Your task to perform on an android device: Open wifi settings Image 0: 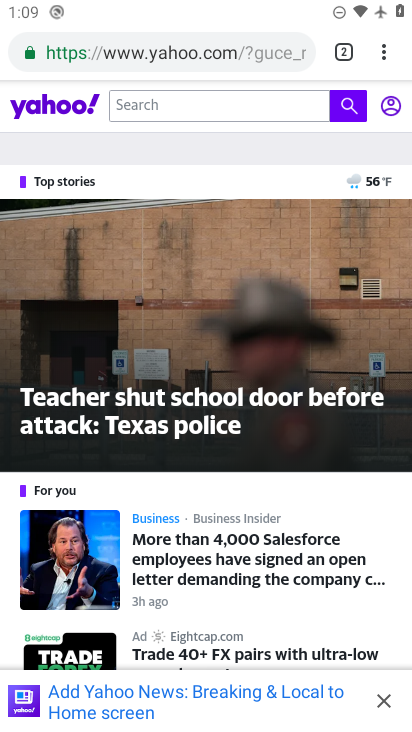
Step 0: press home button
Your task to perform on an android device: Open wifi settings Image 1: 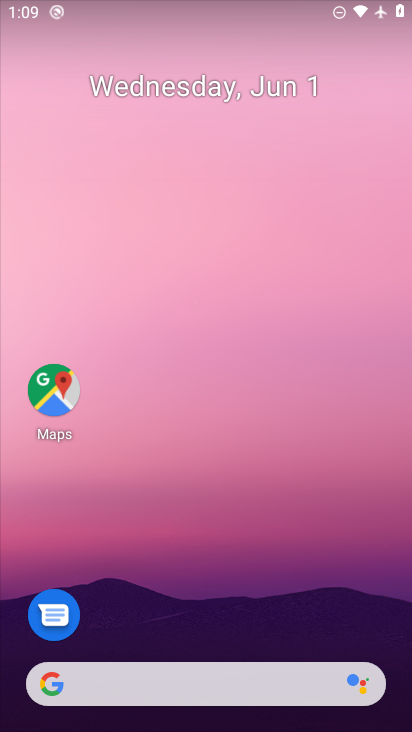
Step 1: drag from (126, 706) to (225, 173)
Your task to perform on an android device: Open wifi settings Image 2: 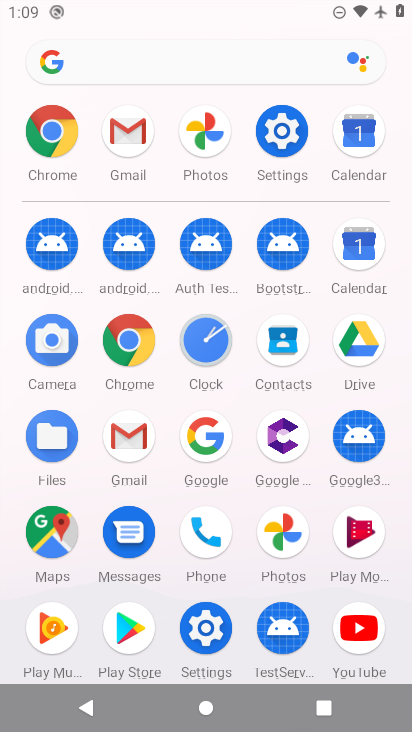
Step 2: click (299, 139)
Your task to perform on an android device: Open wifi settings Image 3: 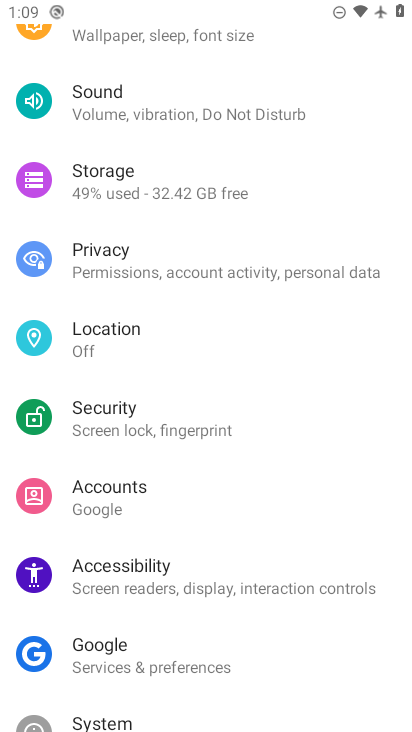
Step 3: drag from (123, 169) to (121, 635)
Your task to perform on an android device: Open wifi settings Image 4: 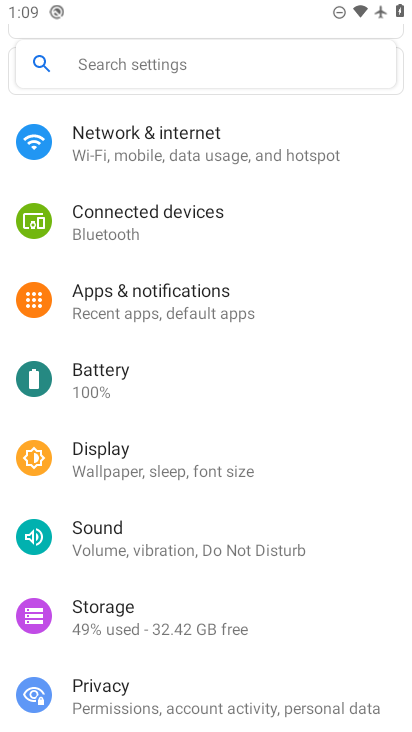
Step 4: click (137, 167)
Your task to perform on an android device: Open wifi settings Image 5: 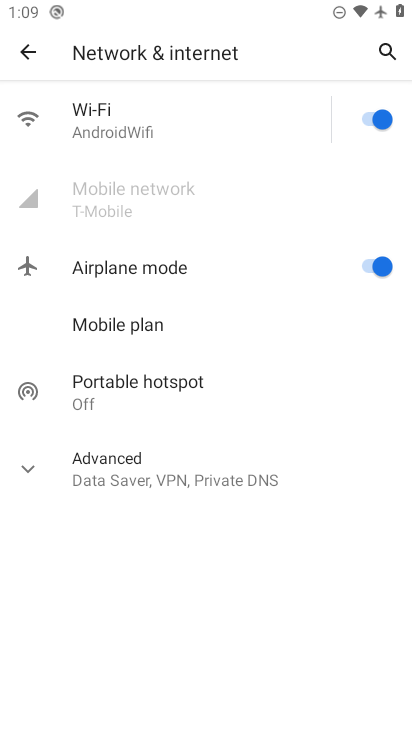
Step 5: click (157, 108)
Your task to perform on an android device: Open wifi settings Image 6: 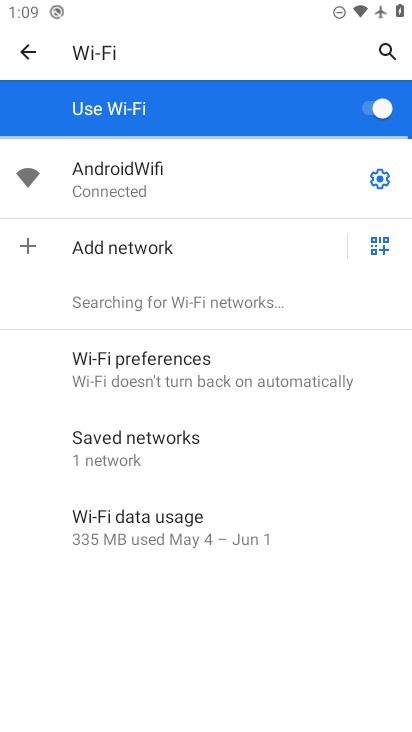
Step 6: click (194, 178)
Your task to perform on an android device: Open wifi settings Image 7: 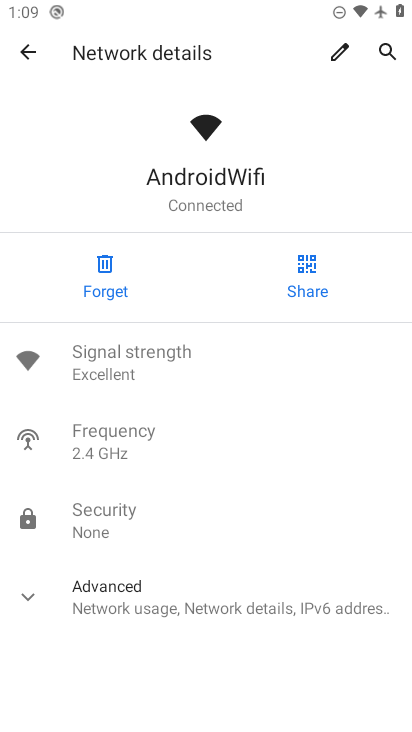
Step 7: task complete